Your task to perform on an android device: Do I have any events today? Image 0: 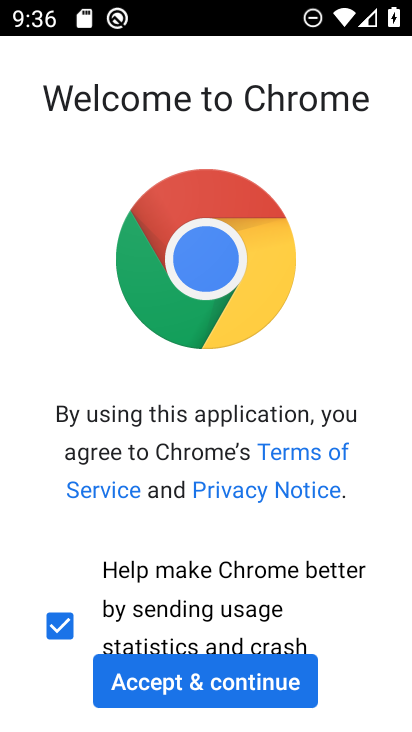
Step 0: press home button
Your task to perform on an android device: Do I have any events today? Image 1: 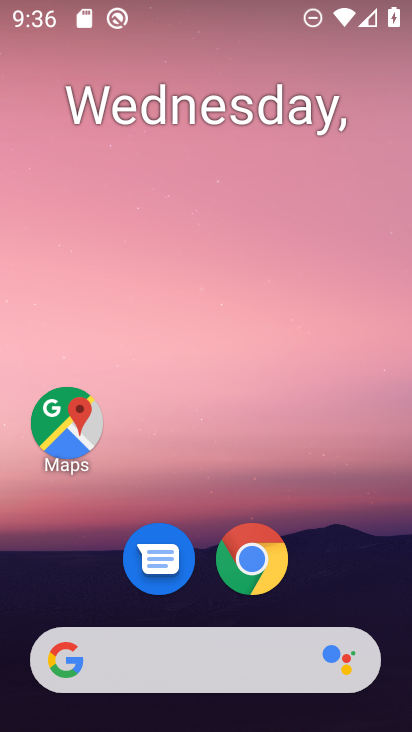
Step 1: drag from (363, 579) to (363, 143)
Your task to perform on an android device: Do I have any events today? Image 2: 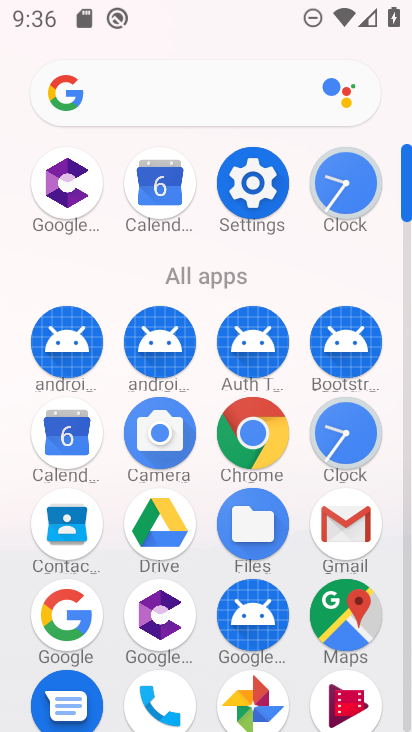
Step 2: click (74, 441)
Your task to perform on an android device: Do I have any events today? Image 3: 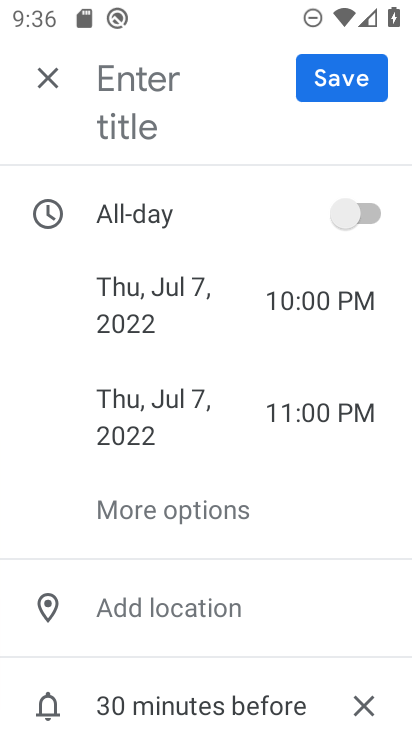
Step 3: press back button
Your task to perform on an android device: Do I have any events today? Image 4: 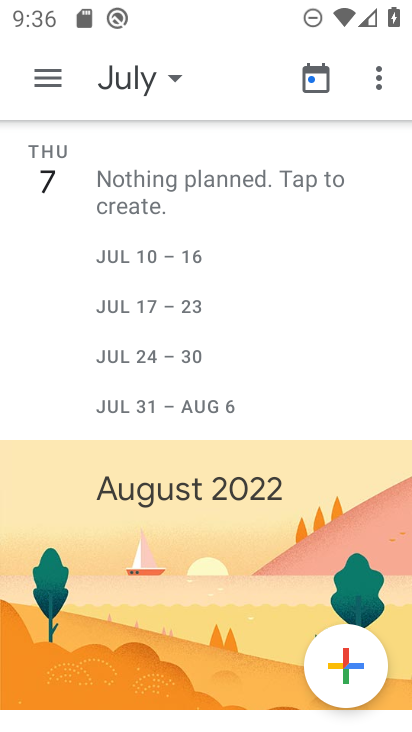
Step 4: click (53, 84)
Your task to perform on an android device: Do I have any events today? Image 5: 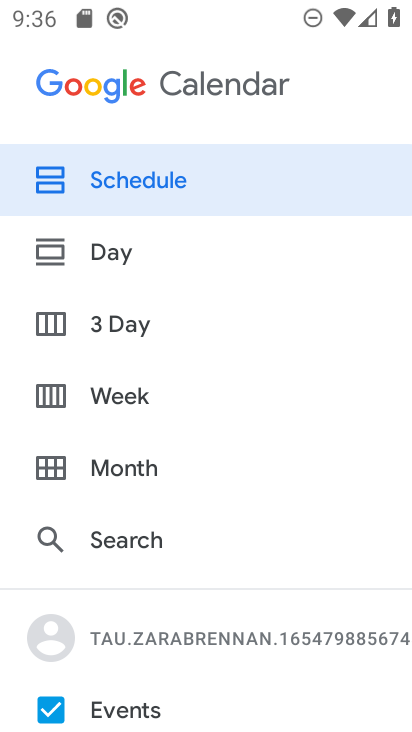
Step 5: drag from (213, 528) to (247, 252)
Your task to perform on an android device: Do I have any events today? Image 6: 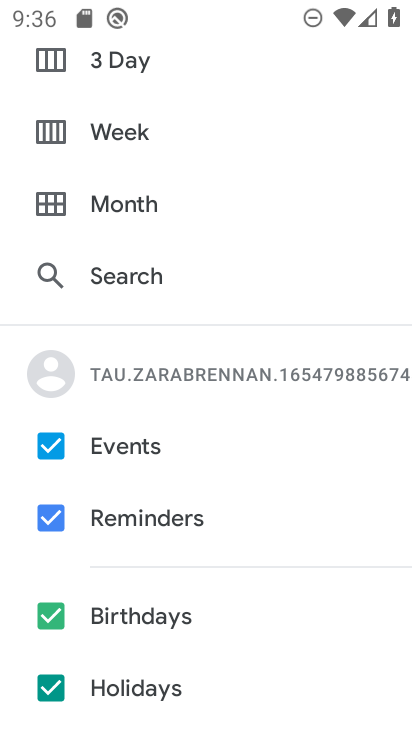
Step 6: drag from (278, 117) to (280, 392)
Your task to perform on an android device: Do I have any events today? Image 7: 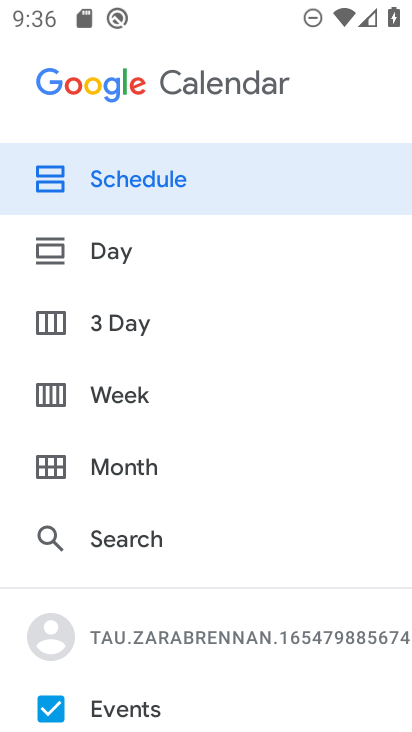
Step 7: click (168, 175)
Your task to perform on an android device: Do I have any events today? Image 8: 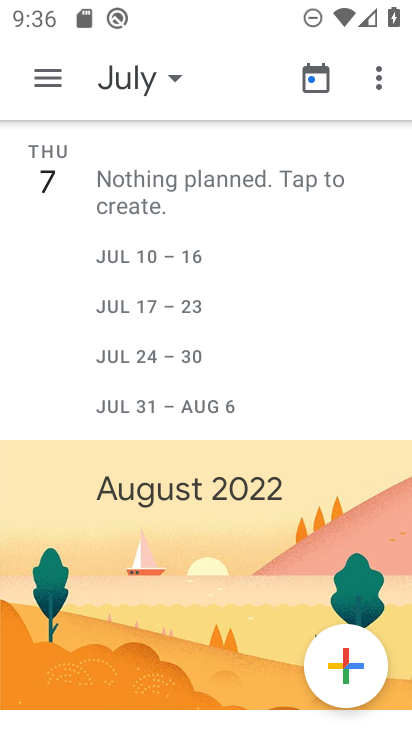
Step 8: click (130, 244)
Your task to perform on an android device: Do I have any events today? Image 9: 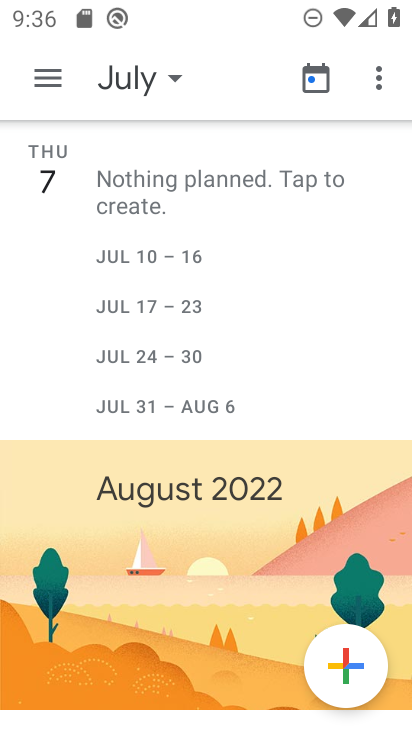
Step 9: task complete